Your task to perform on an android device: remove spam from my inbox in the gmail app Image 0: 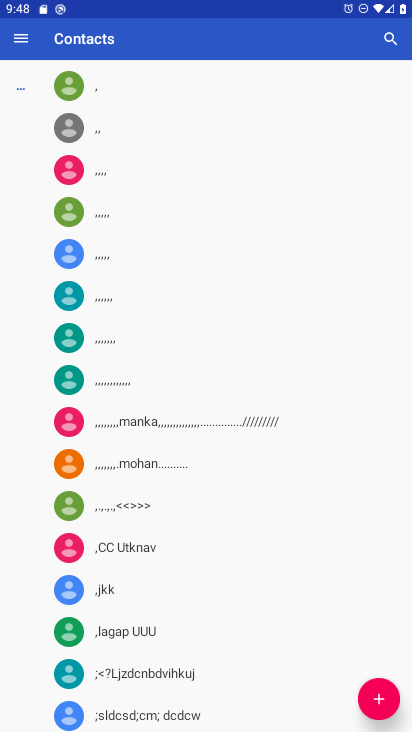
Step 0: press home button
Your task to perform on an android device: remove spam from my inbox in the gmail app Image 1: 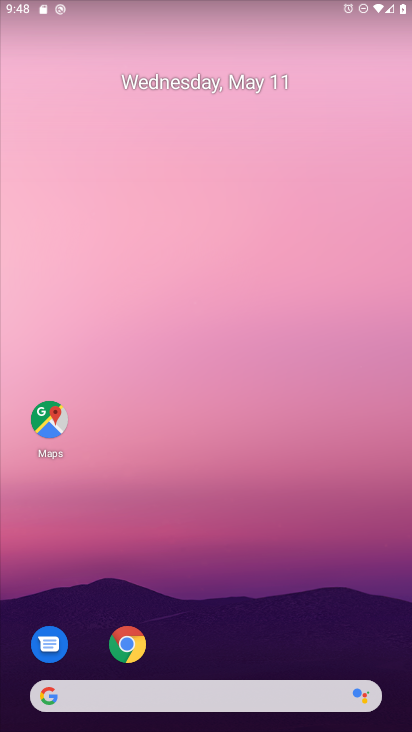
Step 1: drag from (238, 560) to (129, 16)
Your task to perform on an android device: remove spam from my inbox in the gmail app Image 2: 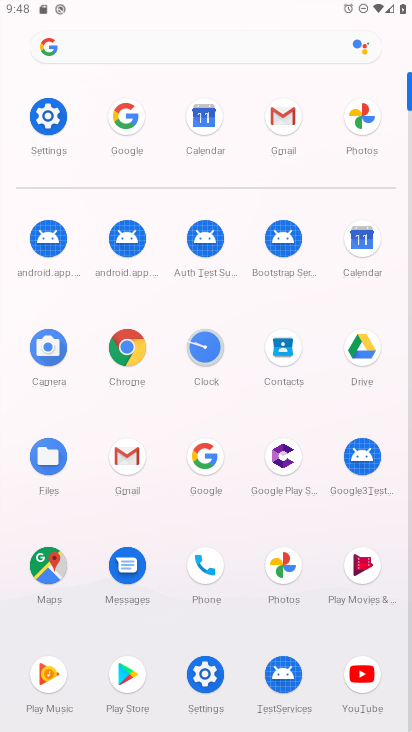
Step 2: click (276, 117)
Your task to perform on an android device: remove spam from my inbox in the gmail app Image 3: 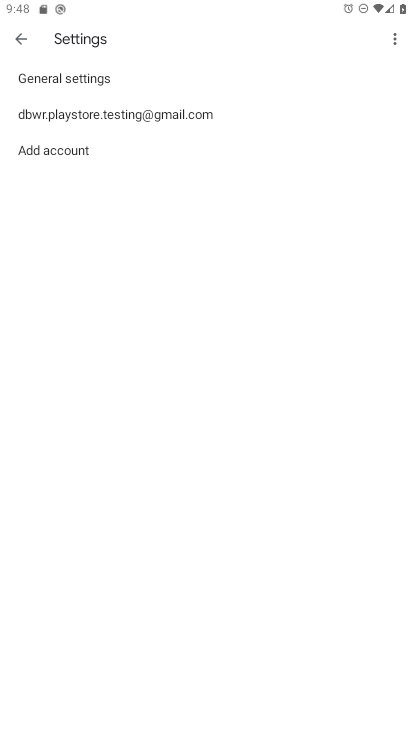
Step 3: click (20, 40)
Your task to perform on an android device: remove spam from my inbox in the gmail app Image 4: 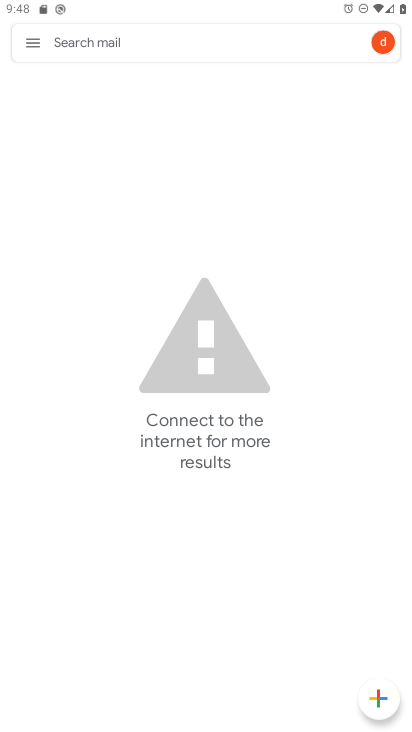
Step 4: click (33, 40)
Your task to perform on an android device: remove spam from my inbox in the gmail app Image 5: 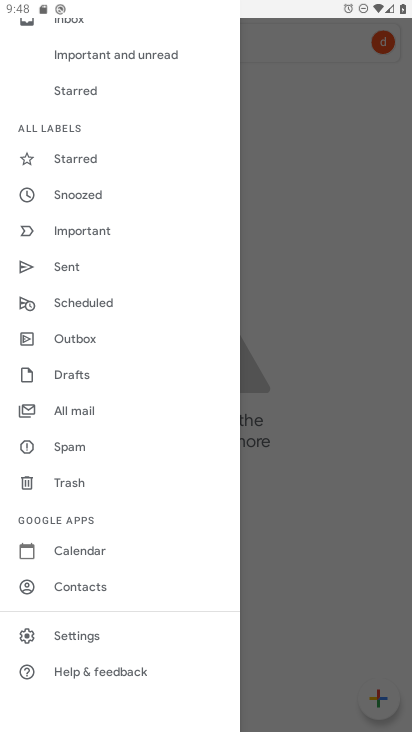
Step 5: click (68, 441)
Your task to perform on an android device: remove spam from my inbox in the gmail app Image 6: 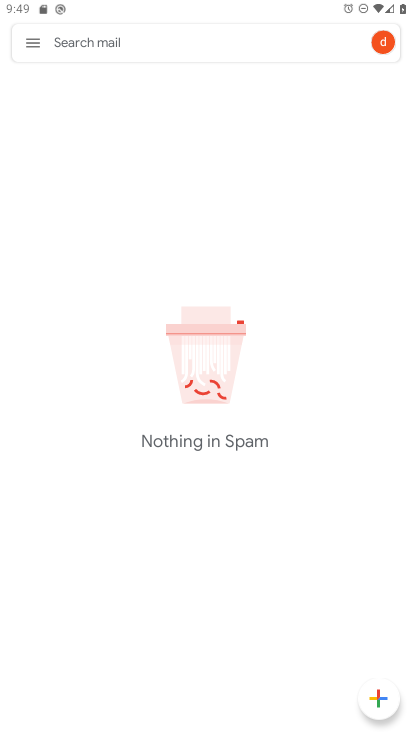
Step 6: task complete